Your task to perform on an android device: allow cookies in the chrome app Image 0: 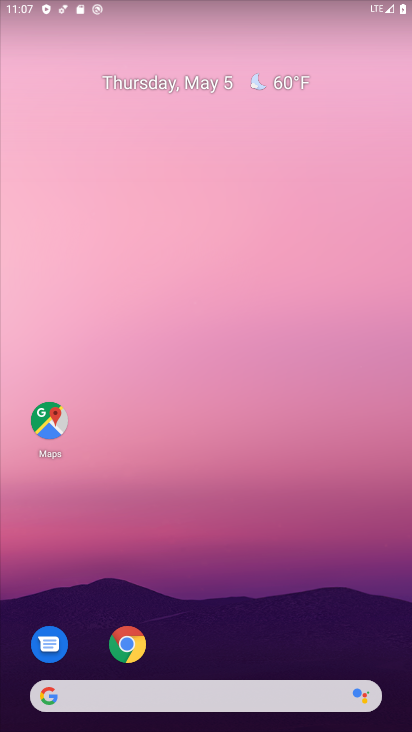
Step 0: drag from (367, 567) to (350, 138)
Your task to perform on an android device: allow cookies in the chrome app Image 1: 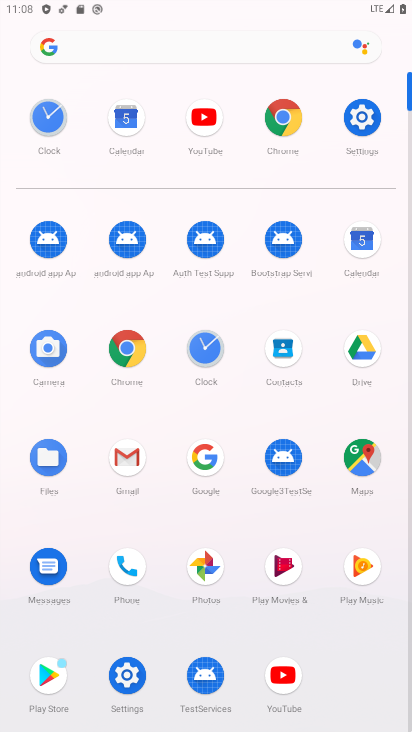
Step 1: click (123, 339)
Your task to perform on an android device: allow cookies in the chrome app Image 2: 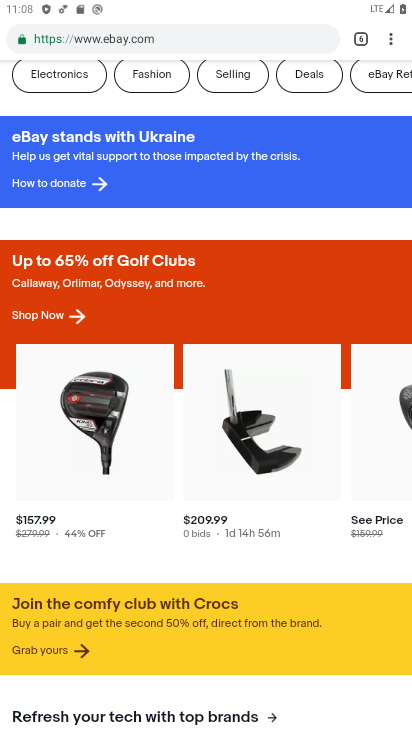
Step 2: drag from (390, 35) to (285, 438)
Your task to perform on an android device: allow cookies in the chrome app Image 3: 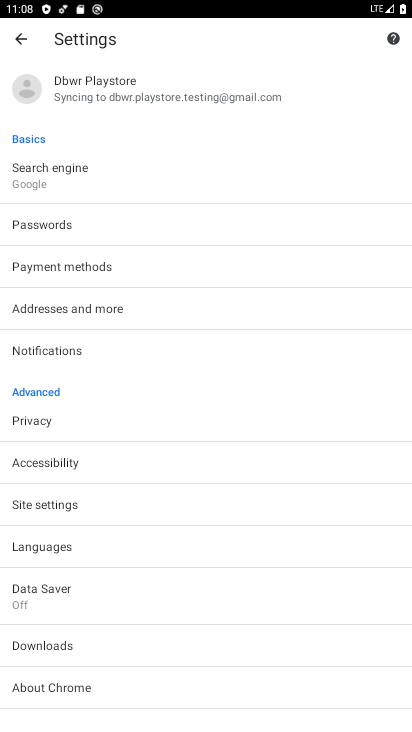
Step 3: click (92, 500)
Your task to perform on an android device: allow cookies in the chrome app Image 4: 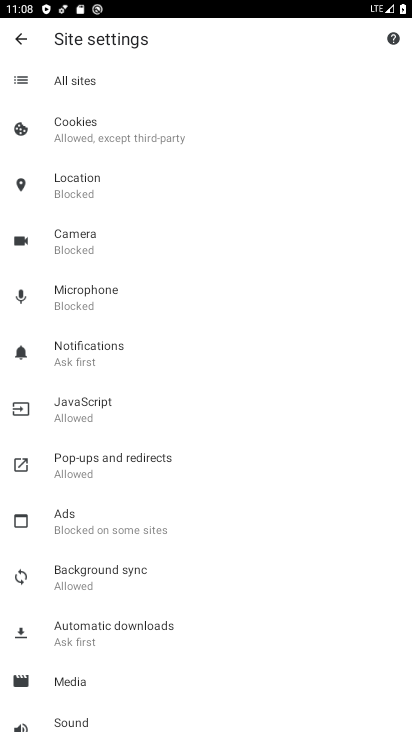
Step 4: click (128, 138)
Your task to perform on an android device: allow cookies in the chrome app Image 5: 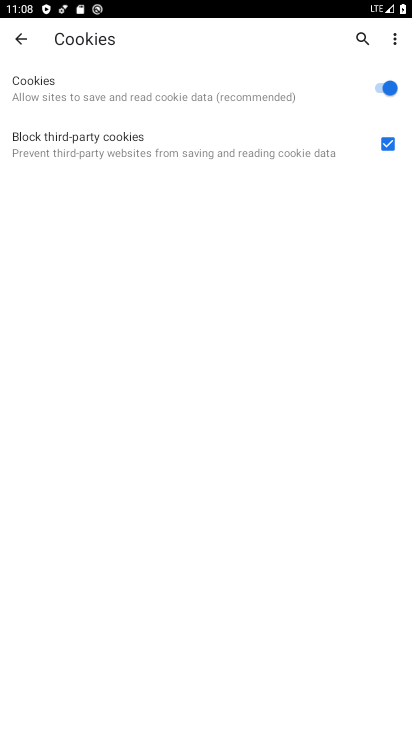
Step 5: task complete